Your task to perform on an android device: Go to Google Image 0: 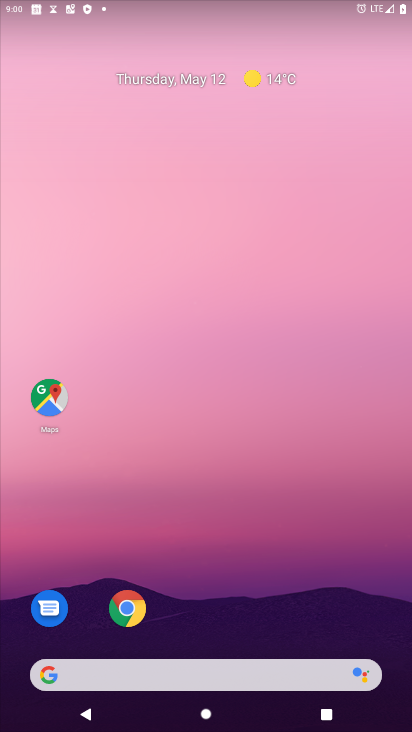
Step 0: drag from (216, 662) to (260, 287)
Your task to perform on an android device: Go to Google Image 1: 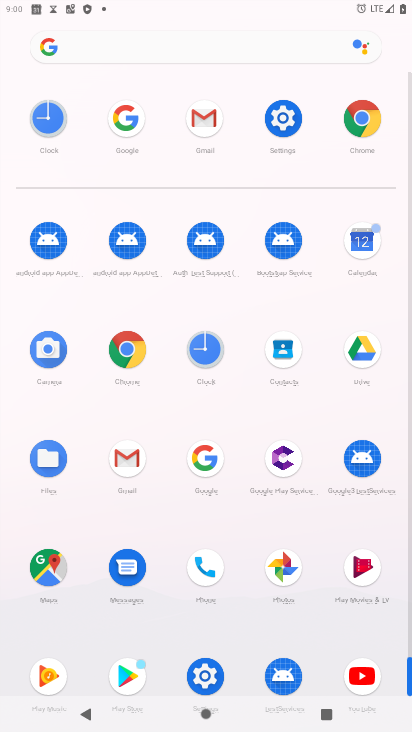
Step 1: click (127, 122)
Your task to perform on an android device: Go to Google Image 2: 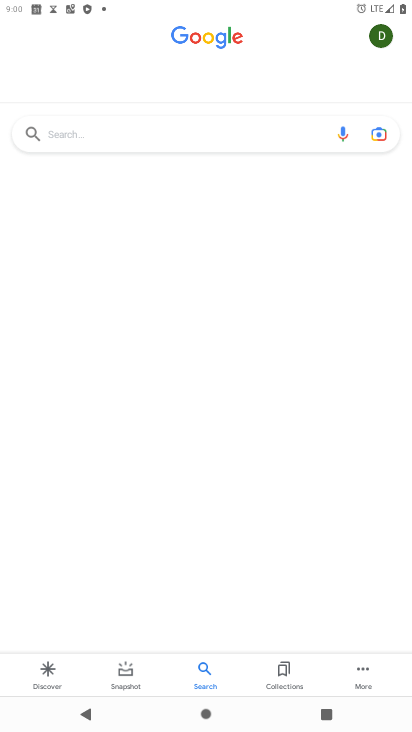
Step 2: task complete